Your task to perform on an android device: change text size in settings app Image 0: 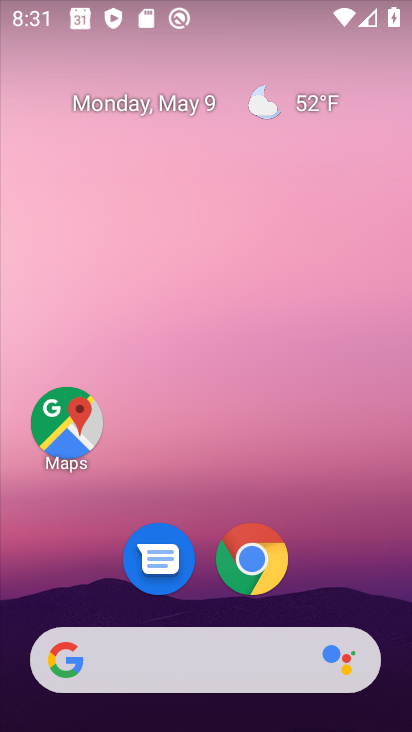
Step 0: drag from (201, 549) to (295, 19)
Your task to perform on an android device: change text size in settings app Image 1: 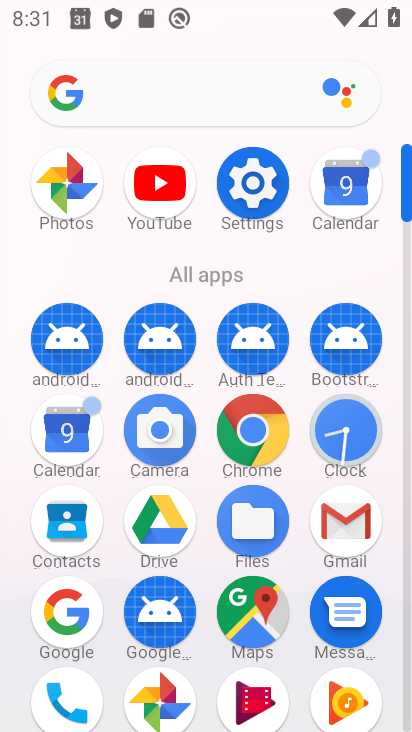
Step 1: click (252, 184)
Your task to perform on an android device: change text size in settings app Image 2: 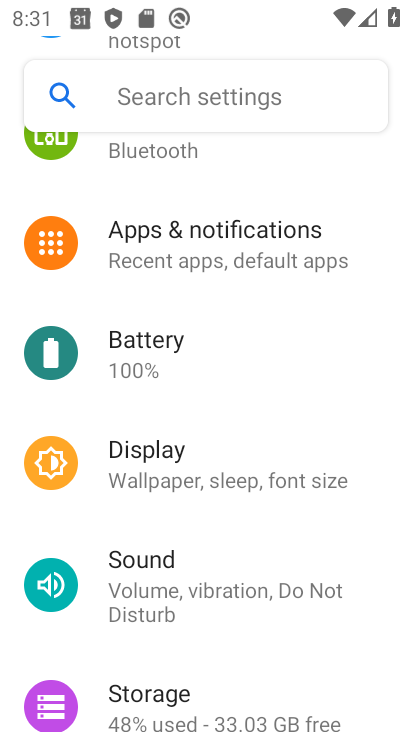
Step 2: click (234, 95)
Your task to perform on an android device: change text size in settings app Image 3: 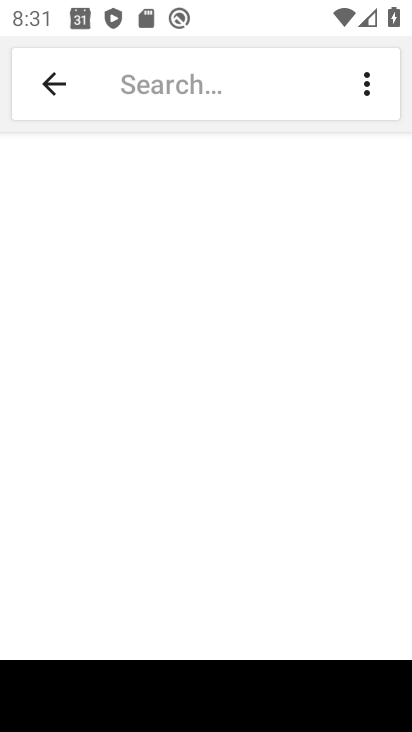
Step 3: type "text size"
Your task to perform on an android device: change text size in settings app Image 4: 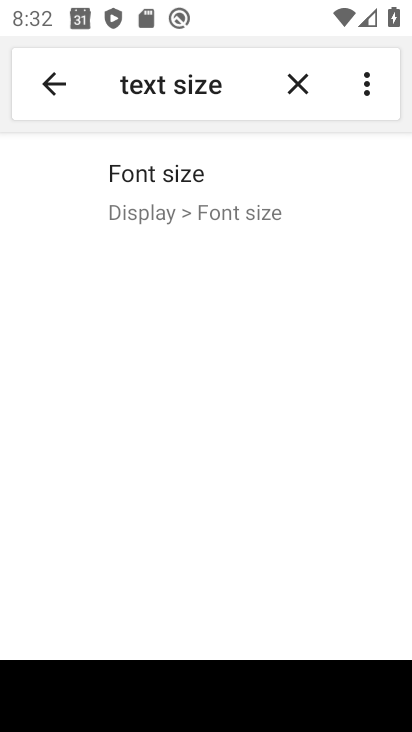
Step 4: click (193, 175)
Your task to perform on an android device: change text size in settings app Image 5: 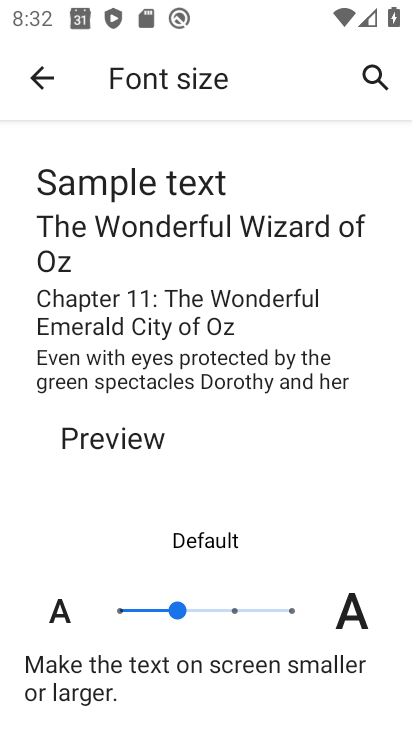
Step 5: task complete